Your task to perform on an android device: open sync settings in chrome Image 0: 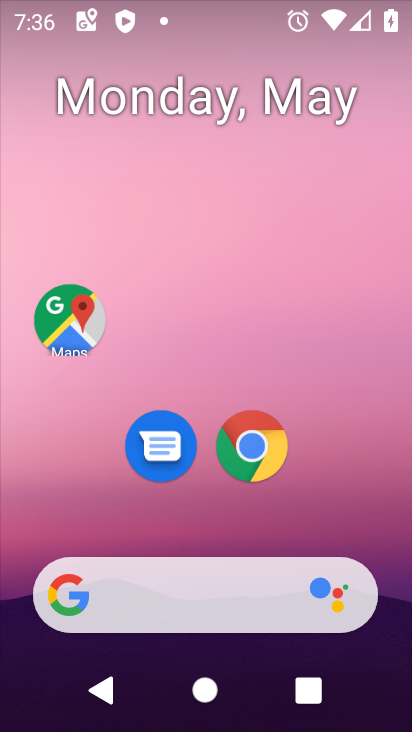
Step 0: click (250, 461)
Your task to perform on an android device: open sync settings in chrome Image 1: 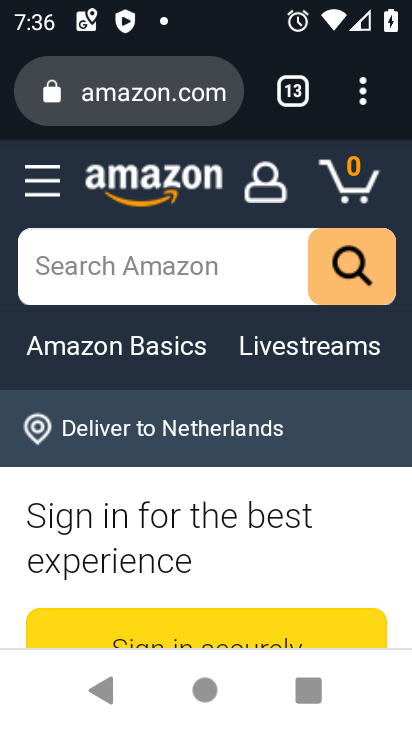
Step 1: click (368, 91)
Your task to perform on an android device: open sync settings in chrome Image 2: 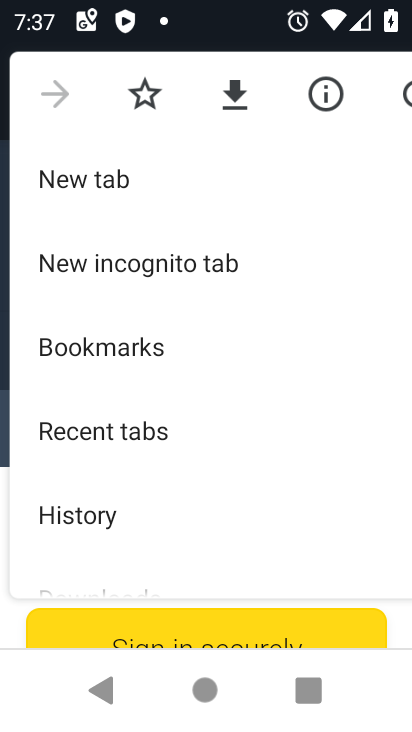
Step 2: drag from (219, 469) to (197, 205)
Your task to perform on an android device: open sync settings in chrome Image 3: 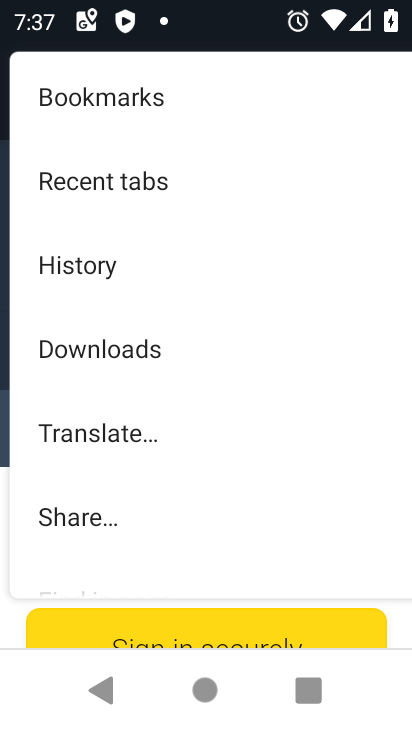
Step 3: drag from (198, 464) to (187, 144)
Your task to perform on an android device: open sync settings in chrome Image 4: 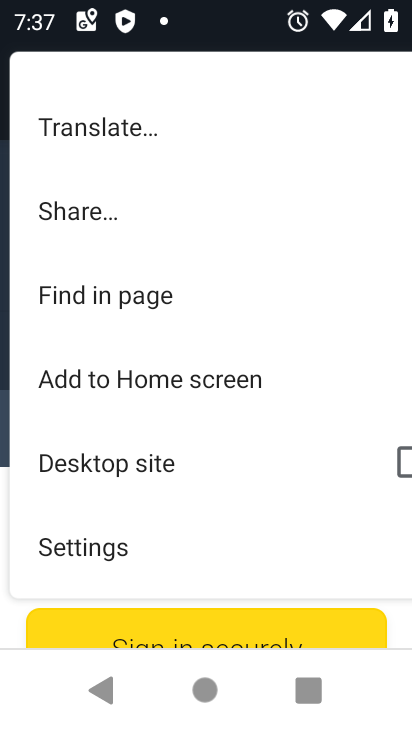
Step 4: click (112, 538)
Your task to perform on an android device: open sync settings in chrome Image 5: 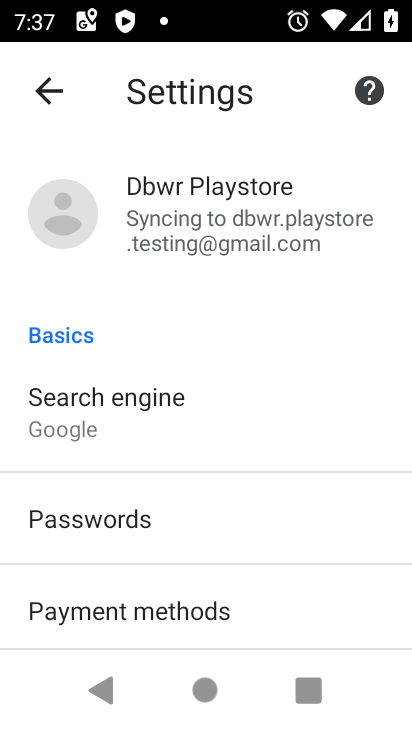
Step 5: drag from (230, 515) to (208, 194)
Your task to perform on an android device: open sync settings in chrome Image 6: 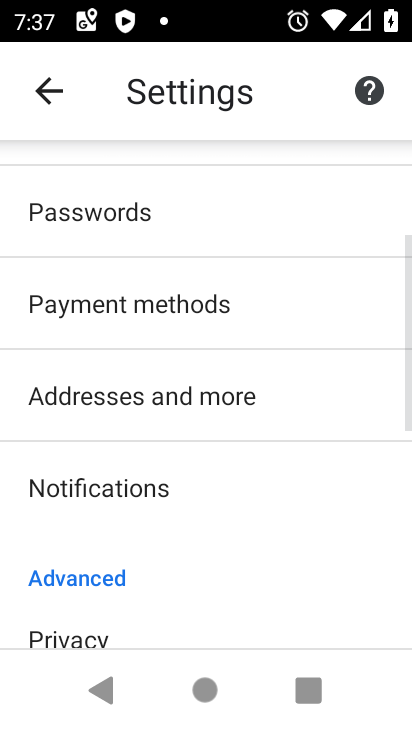
Step 6: drag from (207, 207) to (374, 724)
Your task to perform on an android device: open sync settings in chrome Image 7: 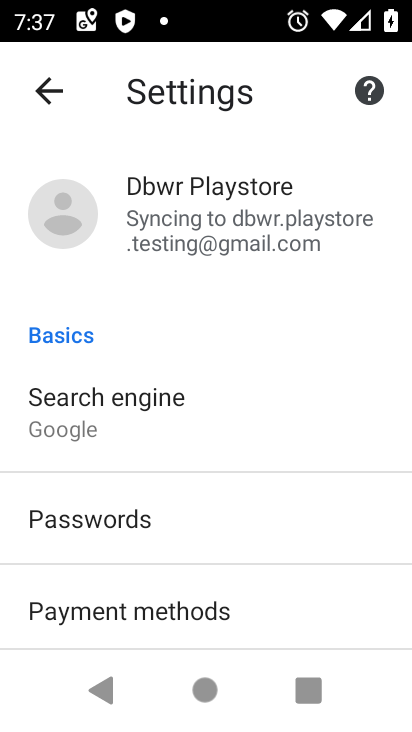
Step 7: click (213, 214)
Your task to perform on an android device: open sync settings in chrome Image 8: 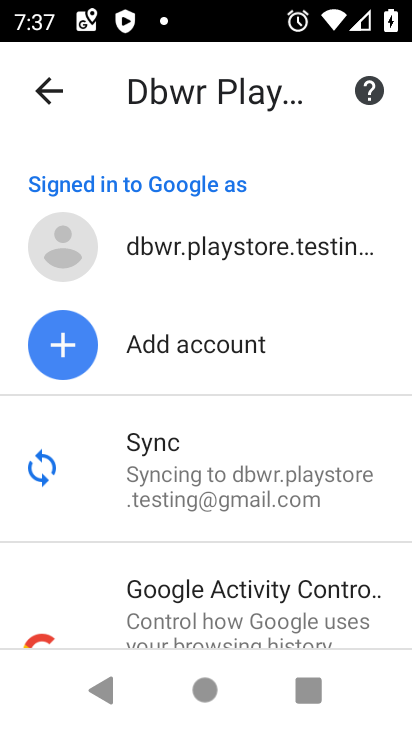
Step 8: click (158, 447)
Your task to perform on an android device: open sync settings in chrome Image 9: 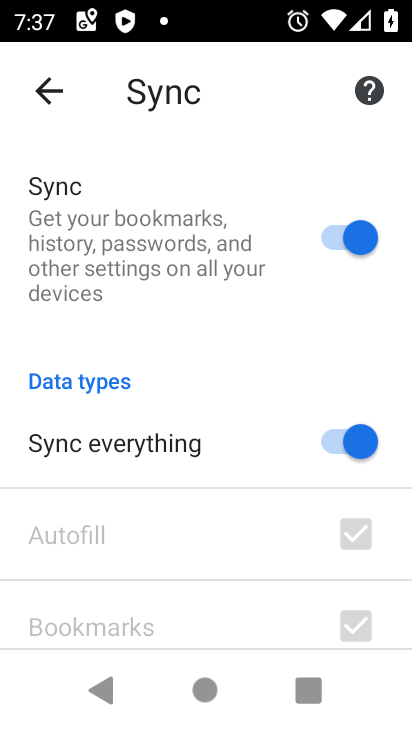
Step 9: task complete